Your task to perform on an android device: Open my contact list Image 0: 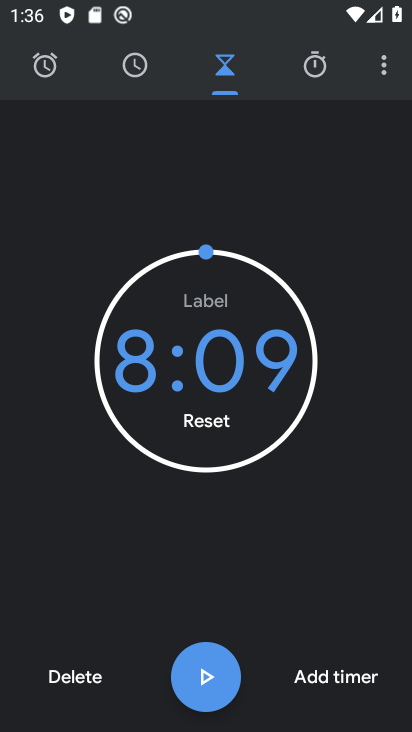
Step 0: press home button
Your task to perform on an android device: Open my contact list Image 1: 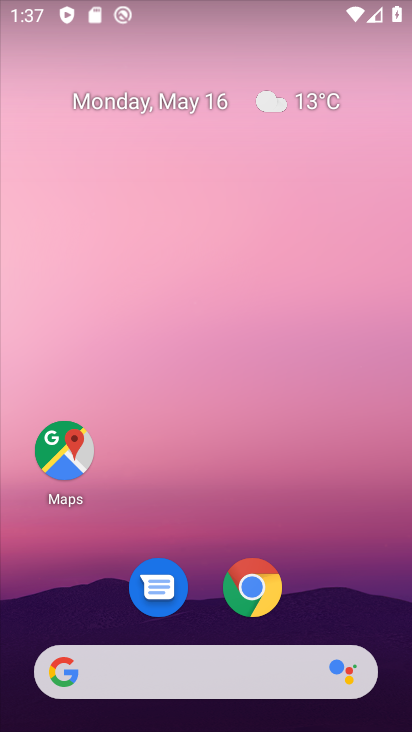
Step 1: drag from (180, 637) to (185, 498)
Your task to perform on an android device: Open my contact list Image 2: 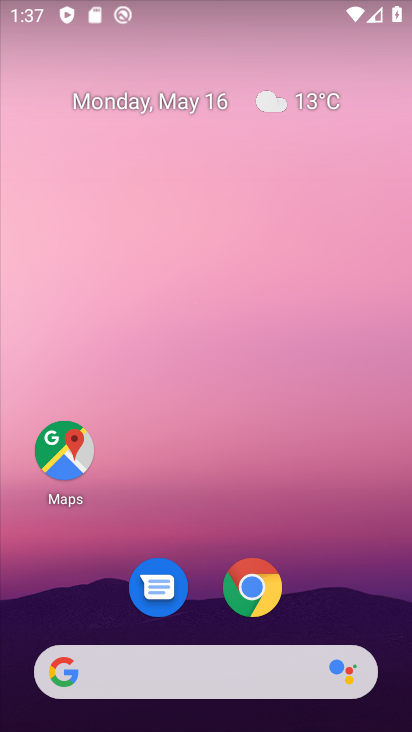
Step 2: drag from (255, 648) to (235, 362)
Your task to perform on an android device: Open my contact list Image 3: 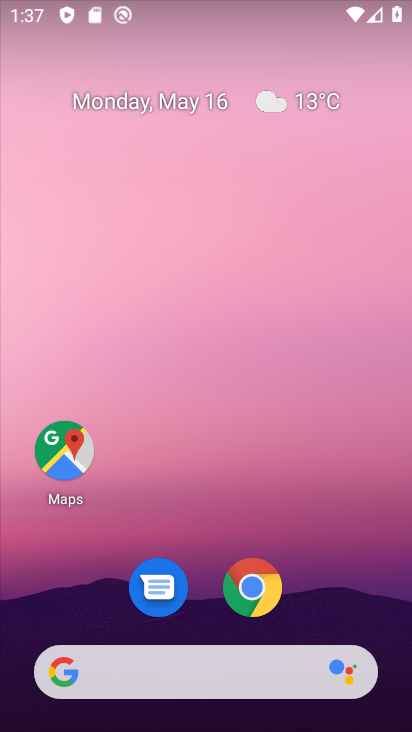
Step 3: click (178, 344)
Your task to perform on an android device: Open my contact list Image 4: 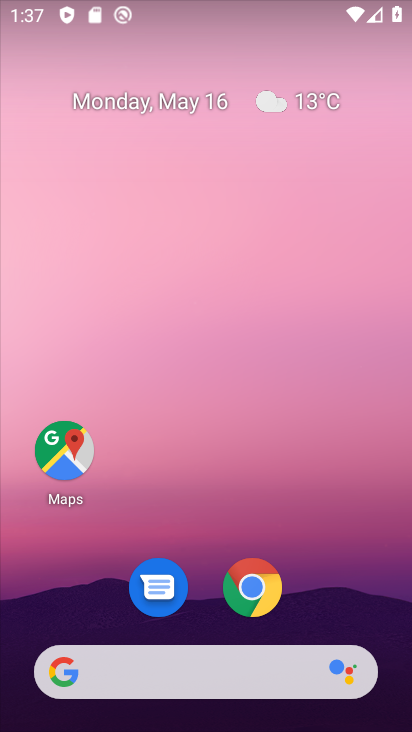
Step 4: drag from (180, 582) to (176, 273)
Your task to perform on an android device: Open my contact list Image 5: 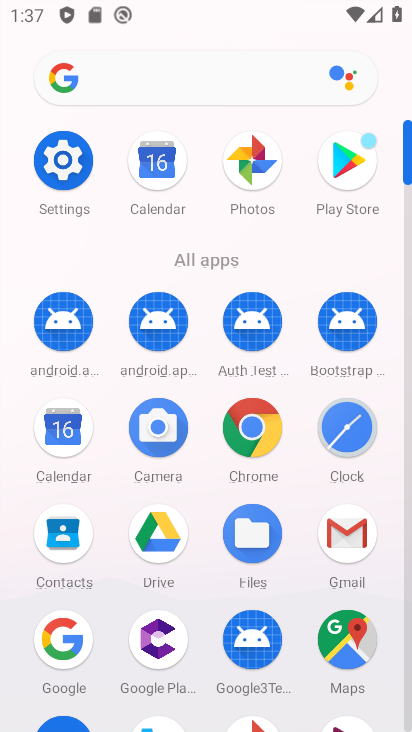
Step 5: click (75, 534)
Your task to perform on an android device: Open my contact list Image 6: 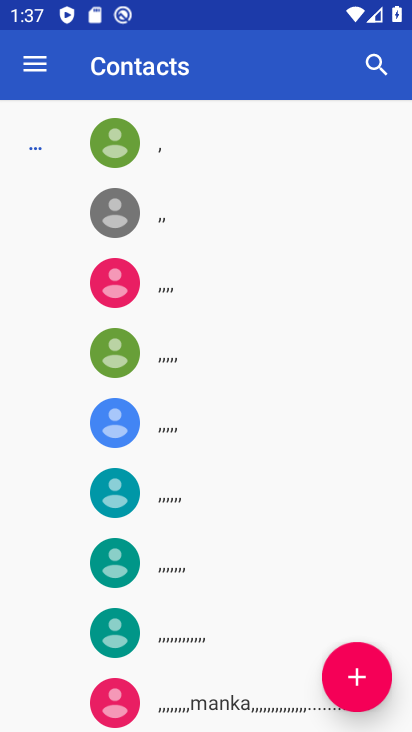
Step 6: task complete